Your task to perform on an android device: turn on the 24-hour format for clock Image 0: 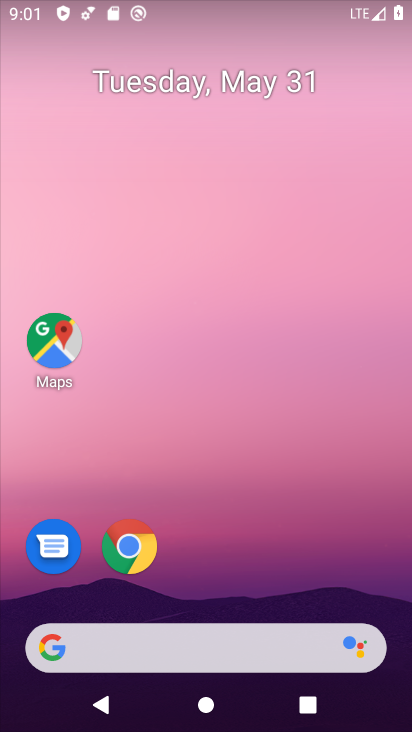
Step 0: drag from (410, 699) to (372, 178)
Your task to perform on an android device: turn on the 24-hour format for clock Image 1: 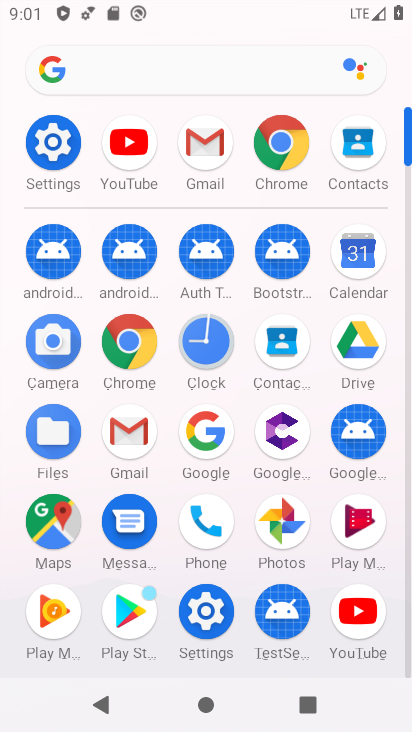
Step 1: click (200, 350)
Your task to perform on an android device: turn on the 24-hour format for clock Image 2: 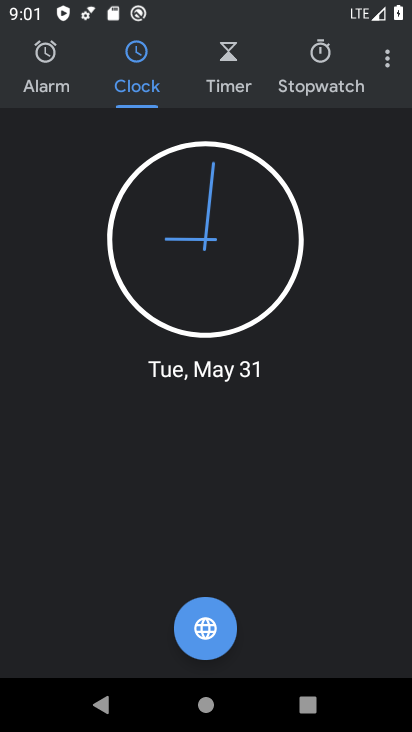
Step 2: click (387, 51)
Your task to perform on an android device: turn on the 24-hour format for clock Image 3: 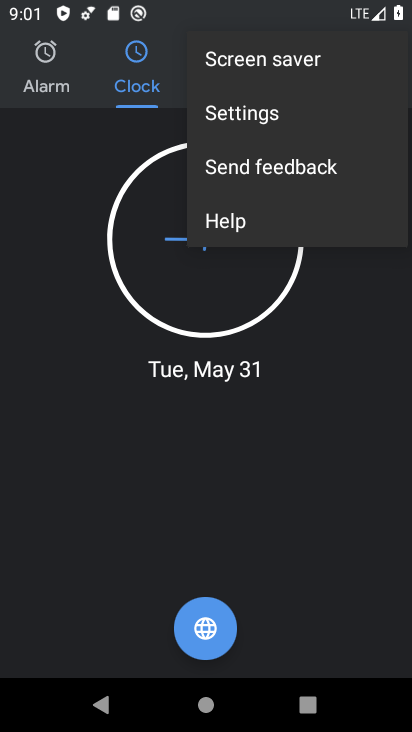
Step 3: click (264, 114)
Your task to perform on an android device: turn on the 24-hour format for clock Image 4: 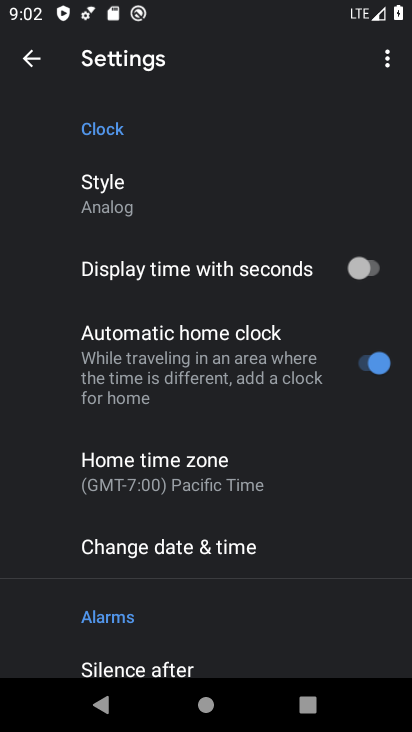
Step 4: click (186, 535)
Your task to perform on an android device: turn on the 24-hour format for clock Image 5: 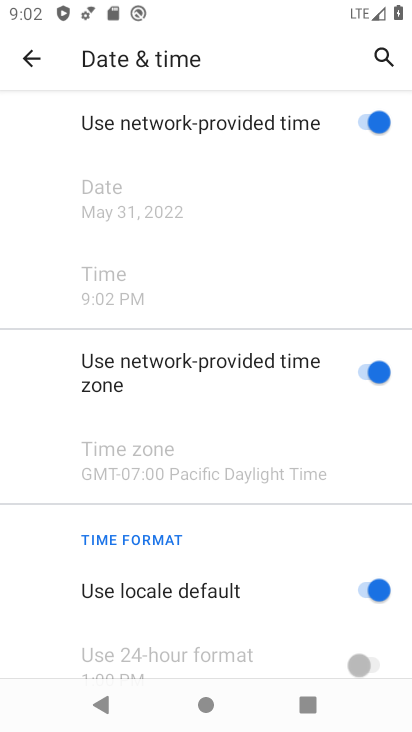
Step 5: drag from (297, 655) to (301, 270)
Your task to perform on an android device: turn on the 24-hour format for clock Image 6: 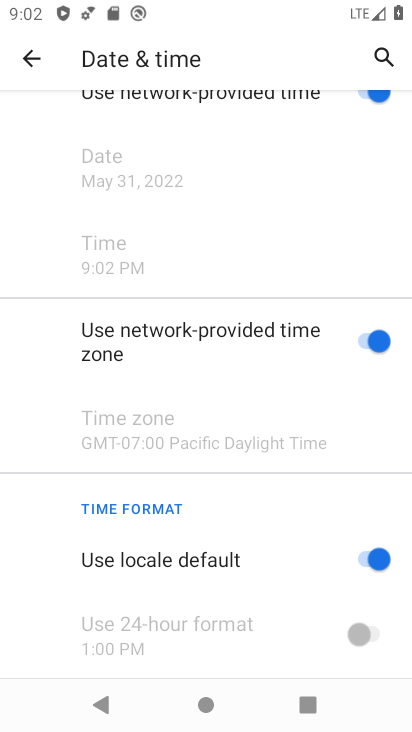
Step 6: click (361, 559)
Your task to perform on an android device: turn on the 24-hour format for clock Image 7: 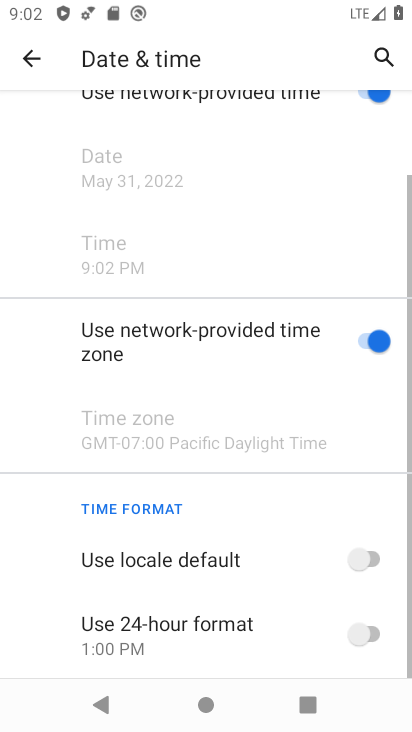
Step 7: click (372, 634)
Your task to perform on an android device: turn on the 24-hour format for clock Image 8: 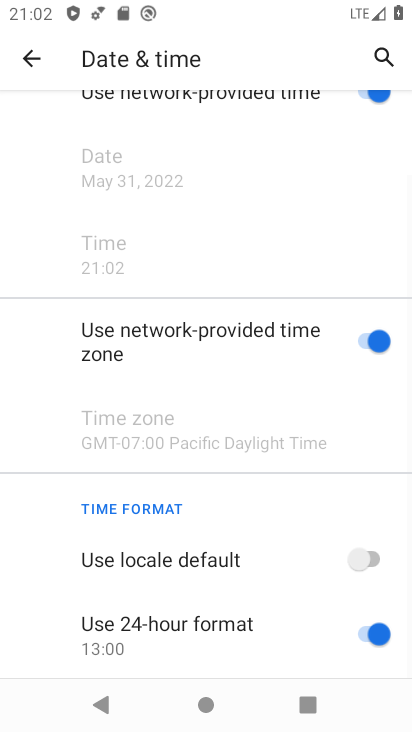
Step 8: task complete